Your task to perform on an android device: turn off smart reply in the gmail app Image 0: 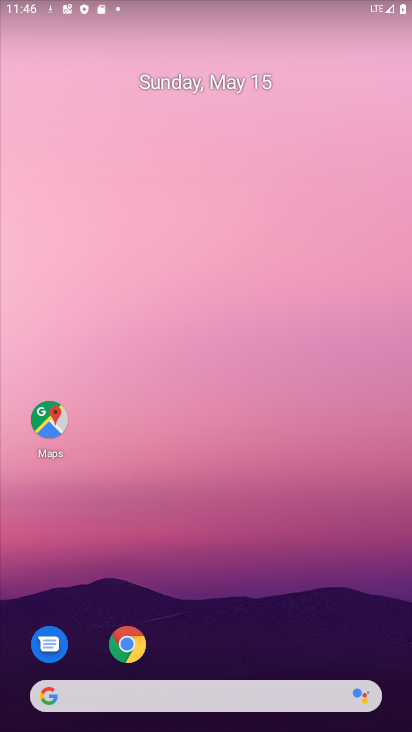
Step 0: drag from (210, 714) to (353, 314)
Your task to perform on an android device: turn off smart reply in the gmail app Image 1: 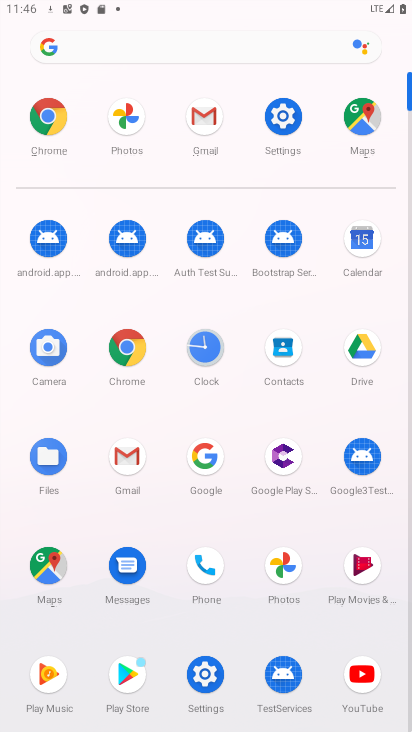
Step 1: click (121, 452)
Your task to perform on an android device: turn off smart reply in the gmail app Image 2: 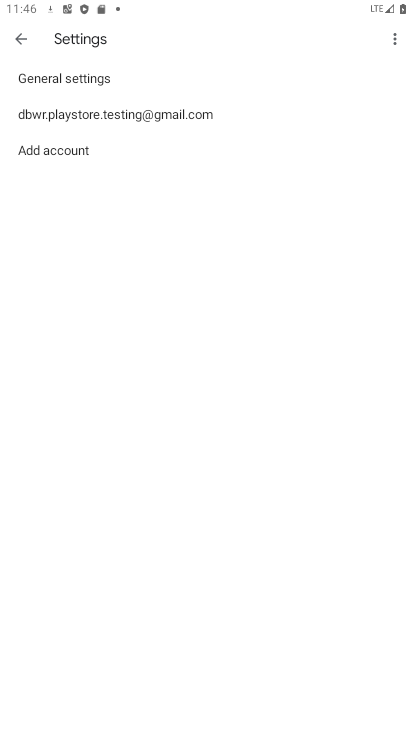
Step 2: click (162, 106)
Your task to perform on an android device: turn off smart reply in the gmail app Image 3: 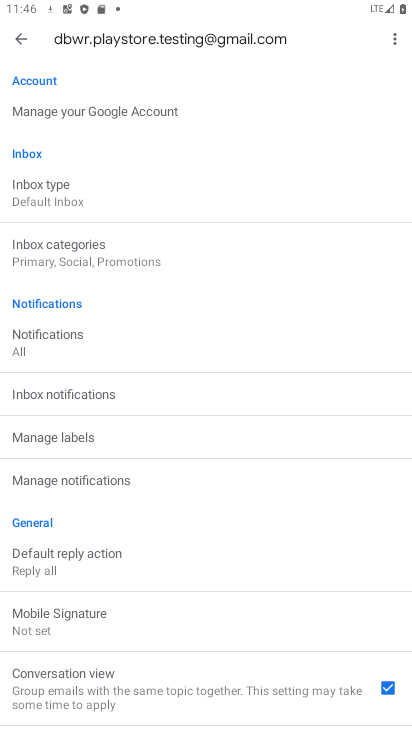
Step 3: drag from (187, 611) to (282, 407)
Your task to perform on an android device: turn off smart reply in the gmail app Image 4: 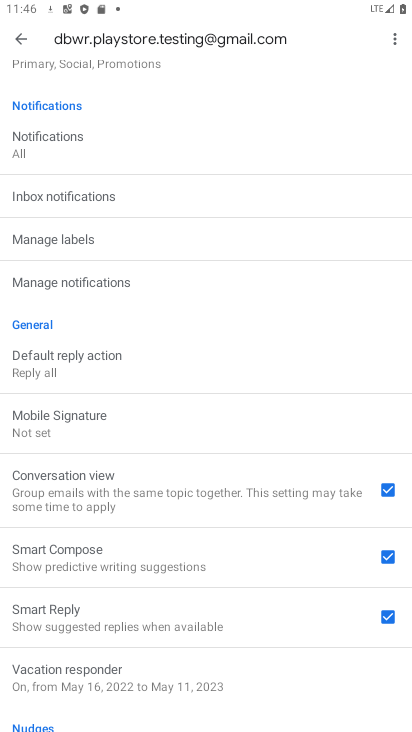
Step 4: drag from (214, 602) to (249, 500)
Your task to perform on an android device: turn off smart reply in the gmail app Image 5: 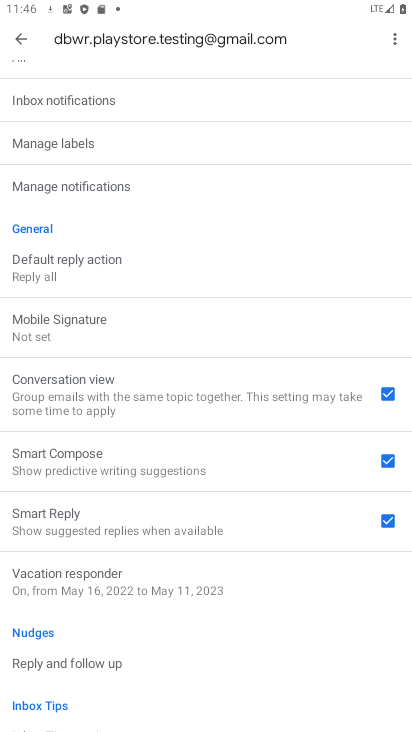
Step 5: click (380, 514)
Your task to perform on an android device: turn off smart reply in the gmail app Image 6: 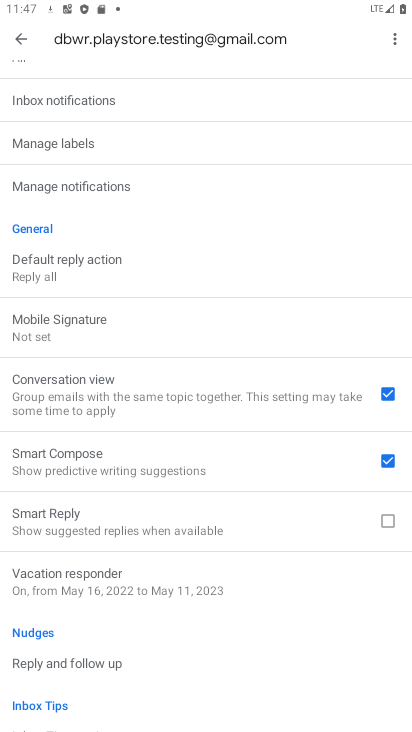
Step 6: task complete